Your task to perform on an android device: Open network settings Image 0: 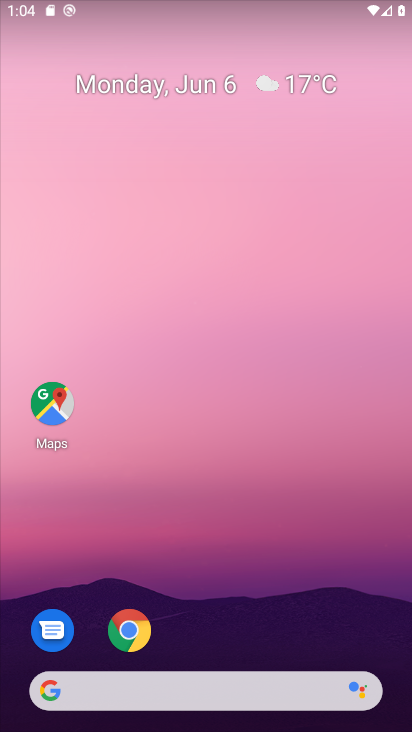
Step 0: drag from (157, 729) to (177, 27)
Your task to perform on an android device: Open network settings Image 1: 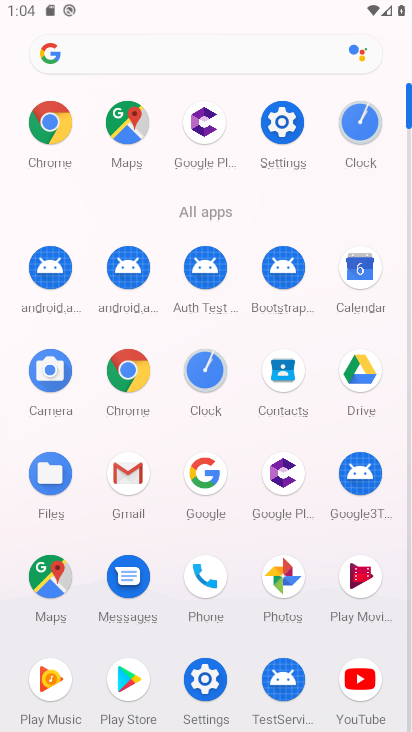
Step 1: click (214, 686)
Your task to perform on an android device: Open network settings Image 2: 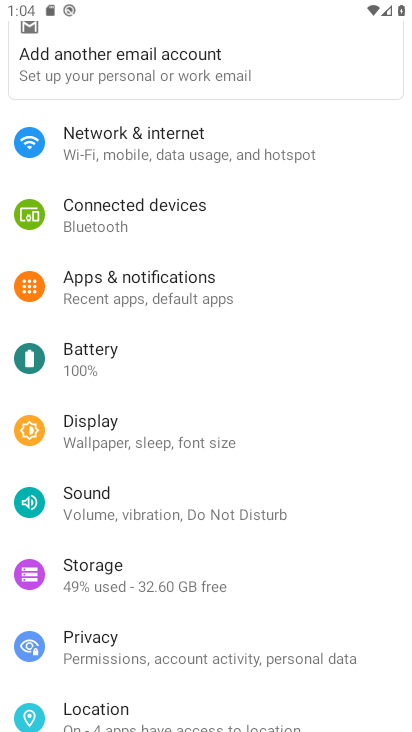
Step 2: click (128, 152)
Your task to perform on an android device: Open network settings Image 3: 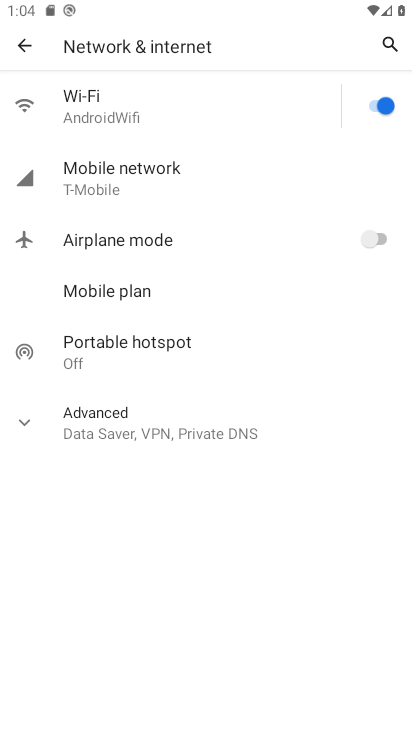
Step 3: click (103, 180)
Your task to perform on an android device: Open network settings Image 4: 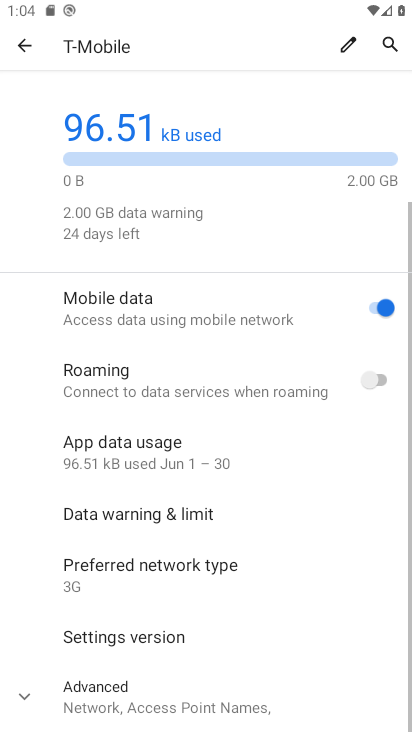
Step 4: click (161, 708)
Your task to perform on an android device: Open network settings Image 5: 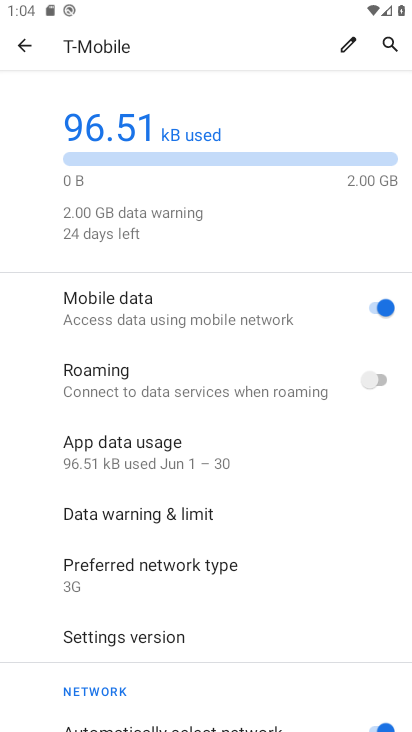
Step 5: task complete